Your task to perform on an android device: check storage Image 0: 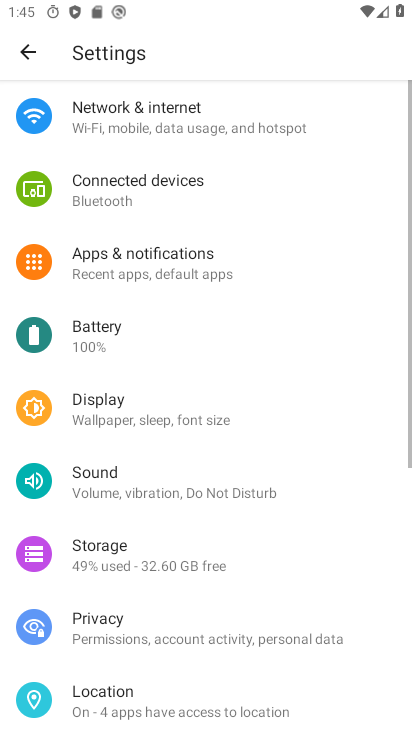
Step 0: click (127, 542)
Your task to perform on an android device: check storage Image 1: 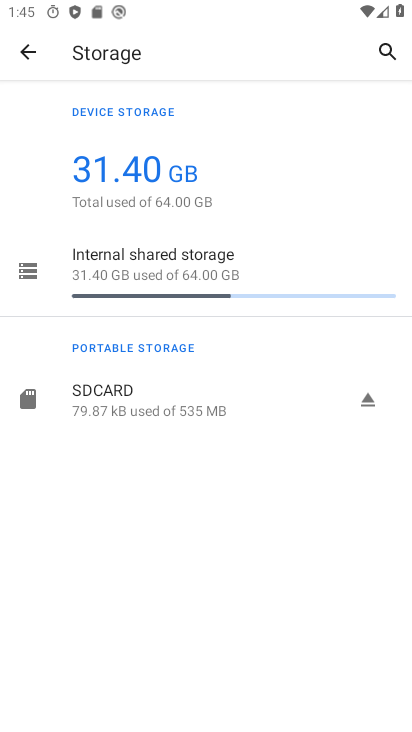
Step 1: click (143, 253)
Your task to perform on an android device: check storage Image 2: 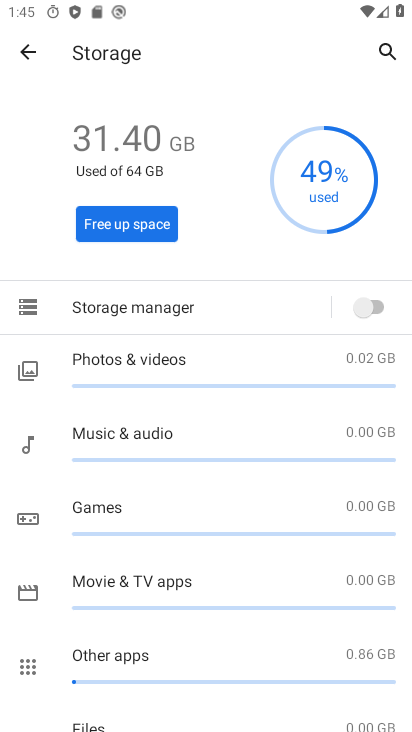
Step 2: task complete